Your task to perform on an android device: toggle improve location accuracy Image 0: 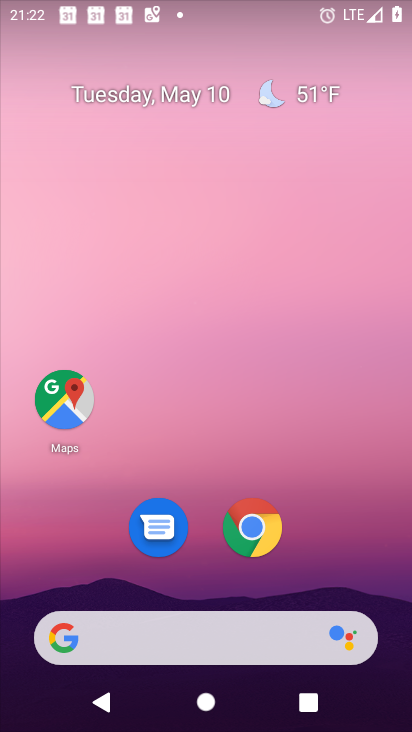
Step 0: drag from (221, 599) to (225, 10)
Your task to perform on an android device: toggle improve location accuracy Image 1: 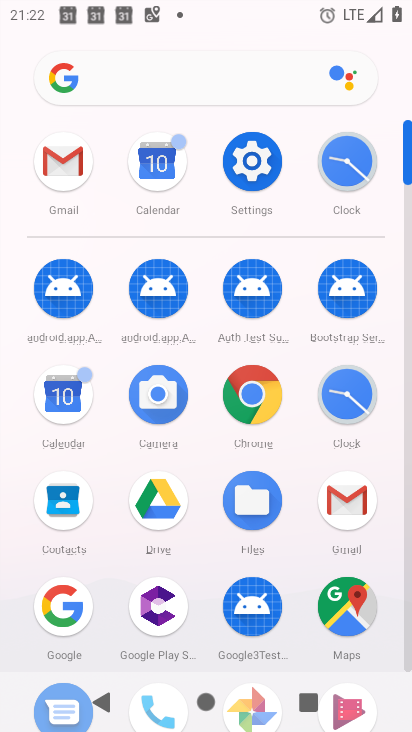
Step 1: click (269, 156)
Your task to perform on an android device: toggle improve location accuracy Image 2: 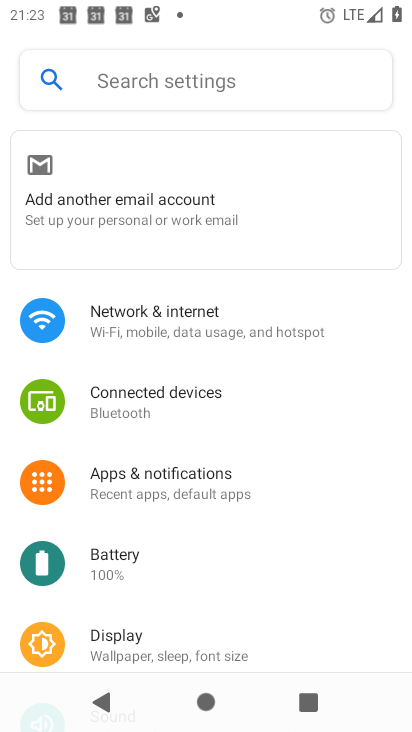
Step 2: drag from (277, 582) to (275, 252)
Your task to perform on an android device: toggle improve location accuracy Image 3: 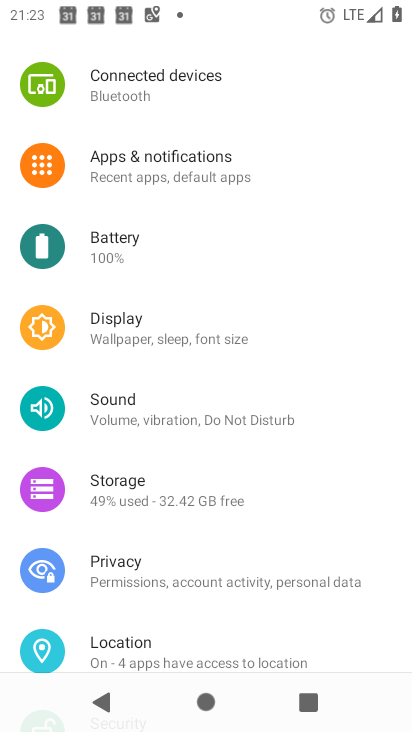
Step 3: click (174, 634)
Your task to perform on an android device: toggle improve location accuracy Image 4: 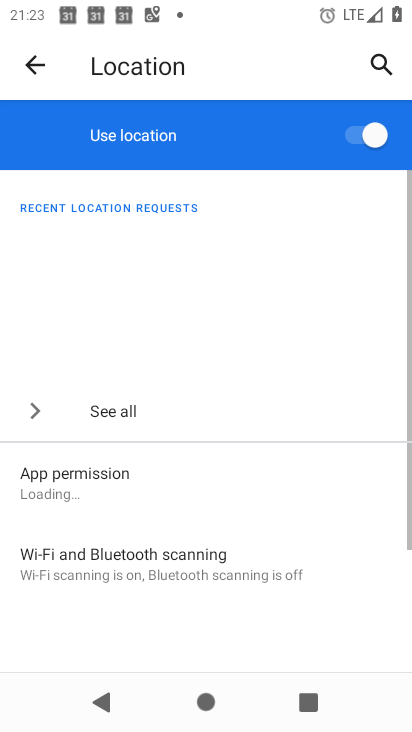
Step 4: drag from (174, 636) to (174, 363)
Your task to perform on an android device: toggle improve location accuracy Image 5: 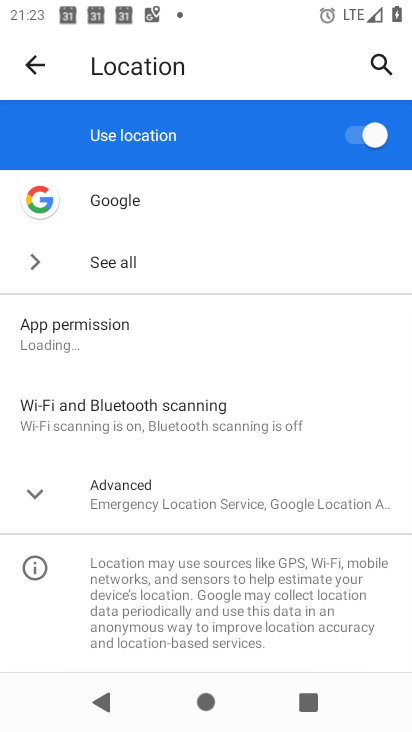
Step 5: click (156, 485)
Your task to perform on an android device: toggle improve location accuracy Image 6: 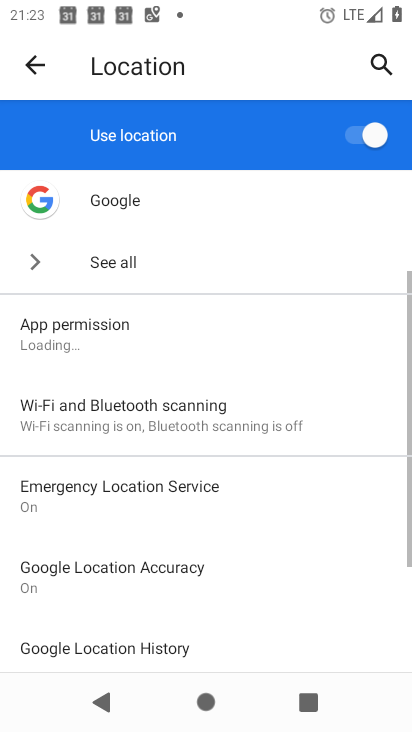
Step 6: drag from (156, 485) to (154, 355)
Your task to perform on an android device: toggle improve location accuracy Image 7: 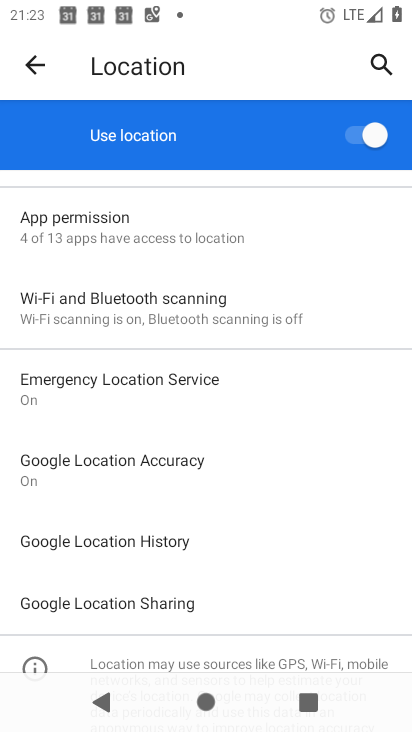
Step 7: click (121, 447)
Your task to perform on an android device: toggle improve location accuracy Image 8: 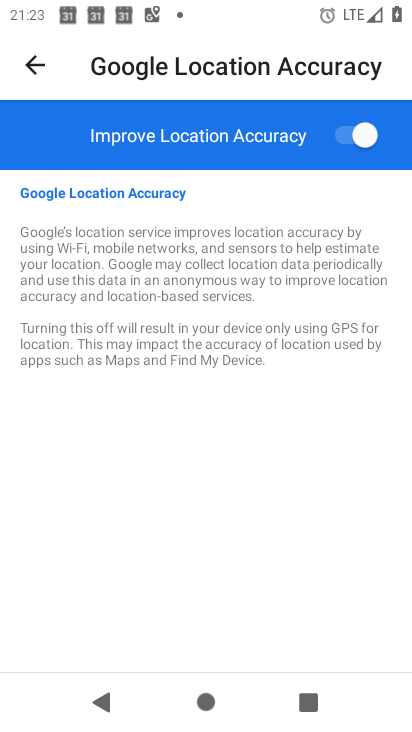
Step 8: click (348, 136)
Your task to perform on an android device: toggle improve location accuracy Image 9: 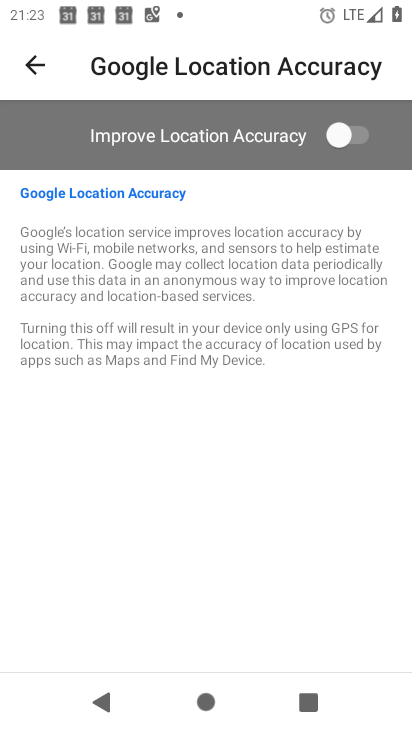
Step 9: task complete